Your task to perform on an android device: set the stopwatch Image 0: 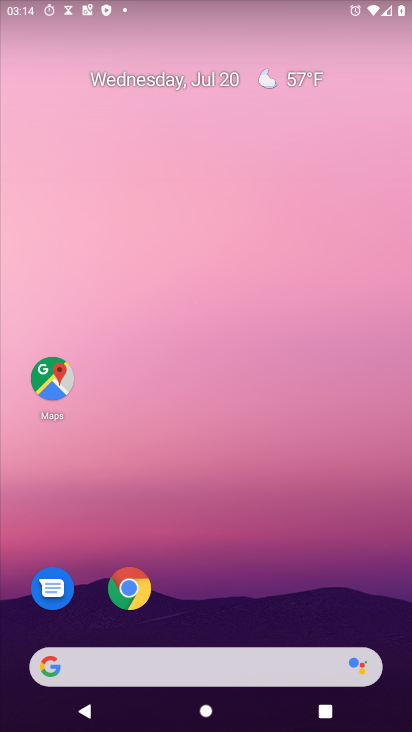
Step 0: drag from (231, 667) to (268, 22)
Your task to perform on an android device: set the stopwatch Image 1: 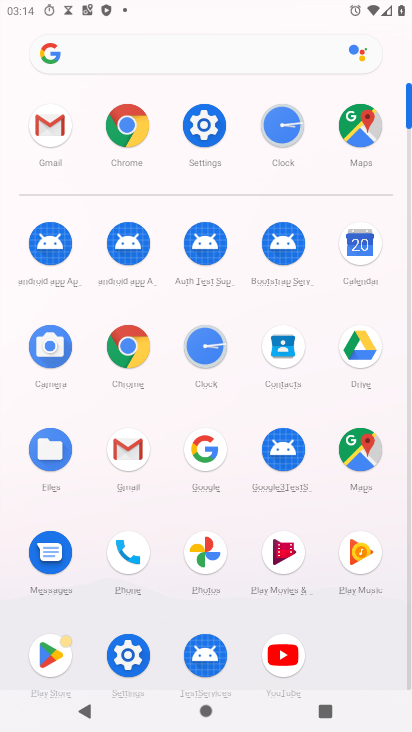
Step 1: click (204, 345)
Your task to perform on an android device: set the stopwatch Image 2: 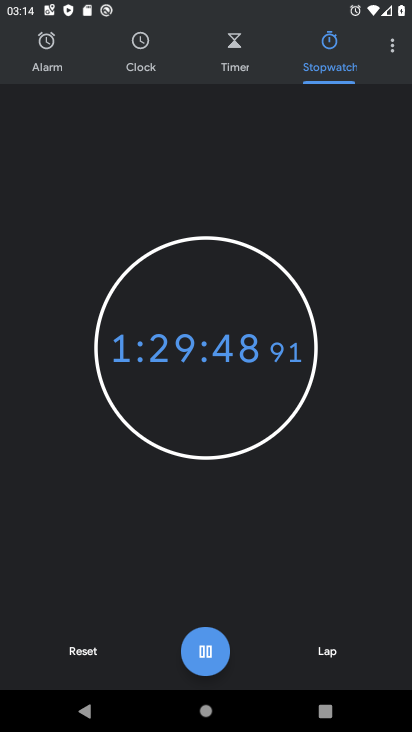
Step 2: task complete